Your task to perform on an android device: change text size in settings app Image 0: 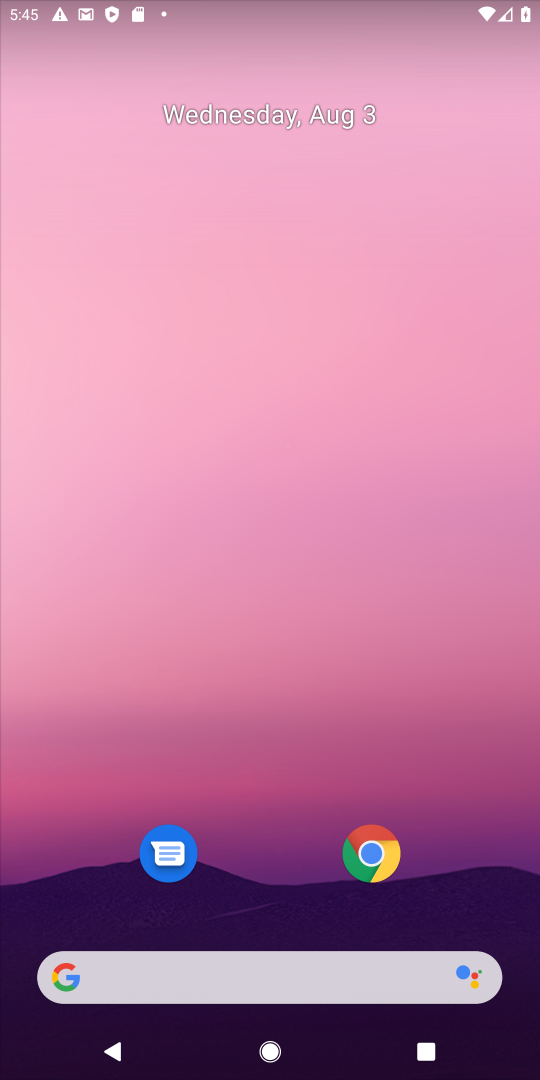
Step 0: drag from (480, 876) to (449, 224)
Your task to perform on an android device: change text size in settings app Image 1: 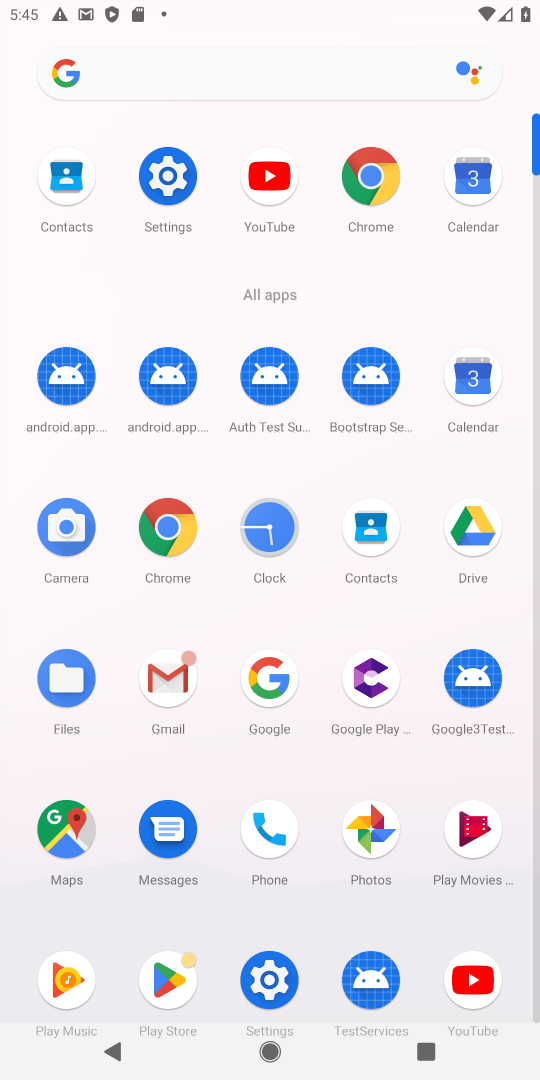
Step 1: click (176, 190)
Your task to perform on an android device: change text size in settings app Image 2: 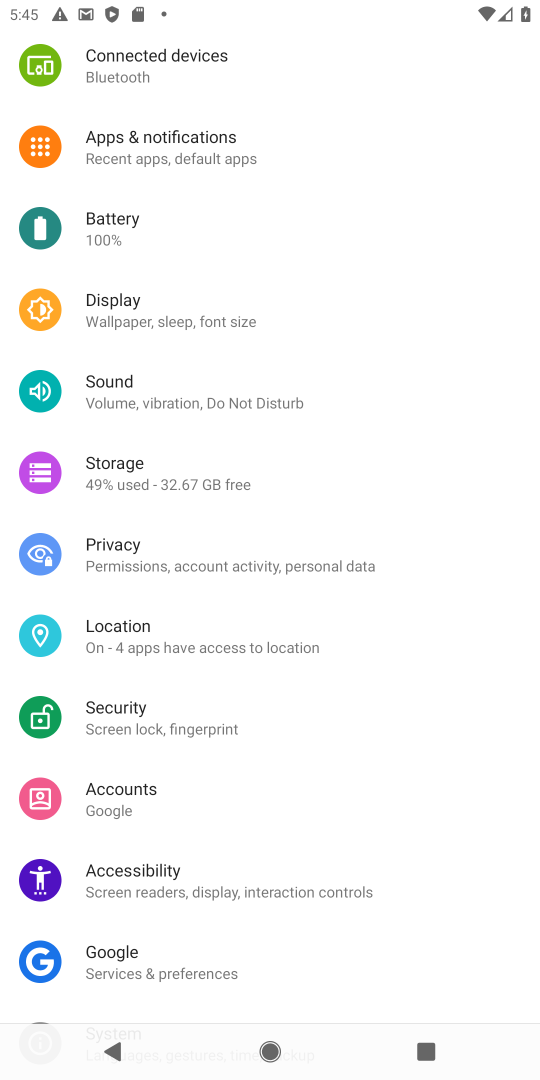
Step 2: drag from (289, 861) to (261, 382)
Your task to perform on an android device: change text size in settings app Image 3: 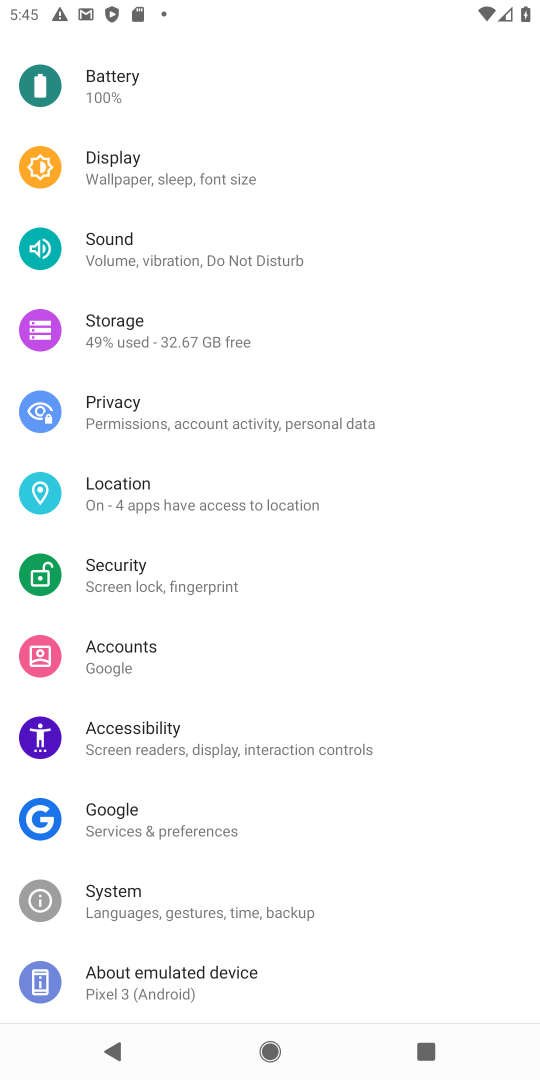
Step 3: click (133, 162)
Your task to perform on an android device: change text size in settings app Image 4: 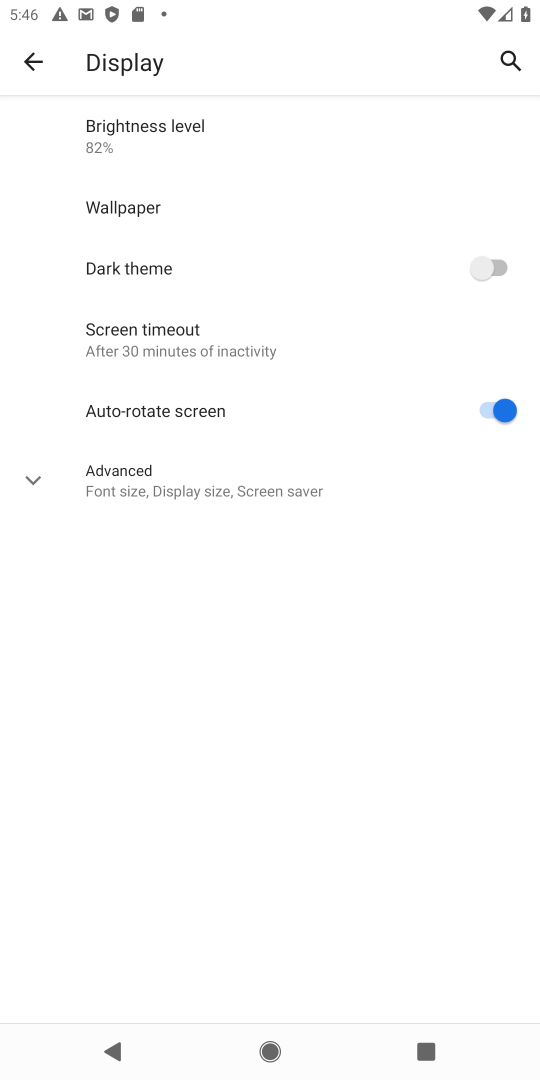
Step 4: click (293, 499)
Your task to perform on an android device: change text size in settings app Image 5: 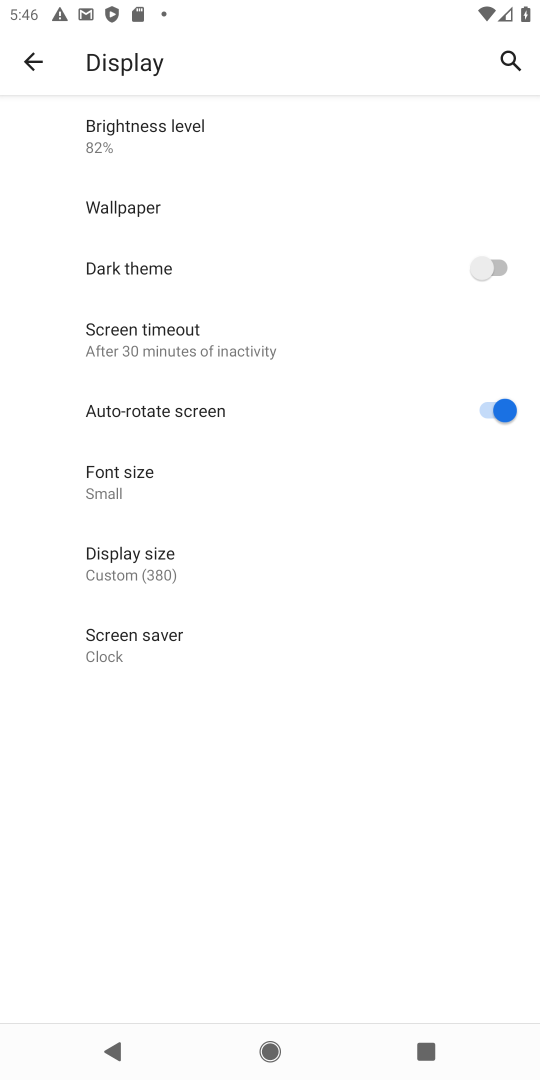
Step 5: click (155, 484)
Your task to perform on an android device: change text size in settings app Image 6: 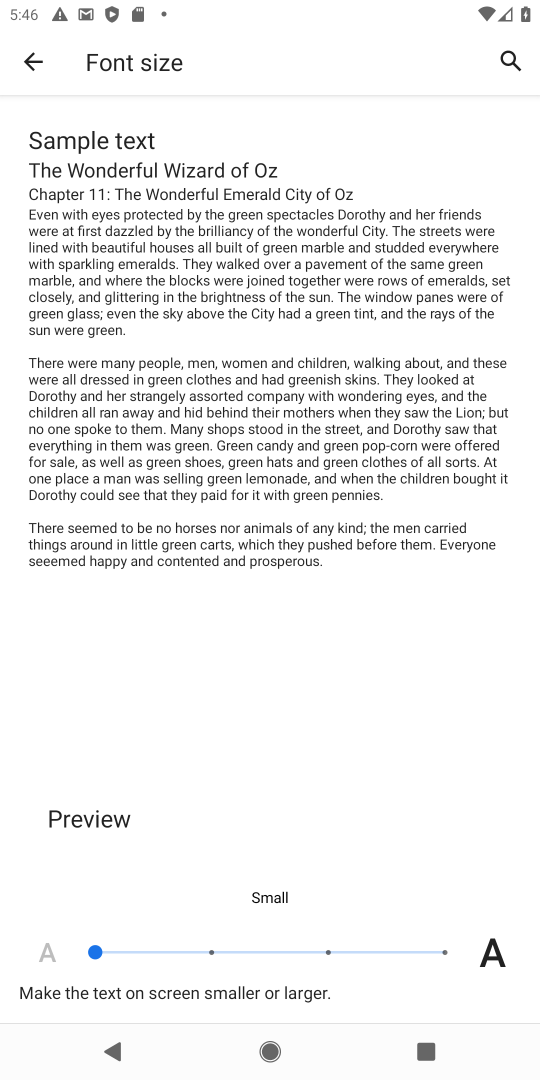
Step 6: task complete